Your task to perform on an android device: change notification settings in the gmail app Image 0: 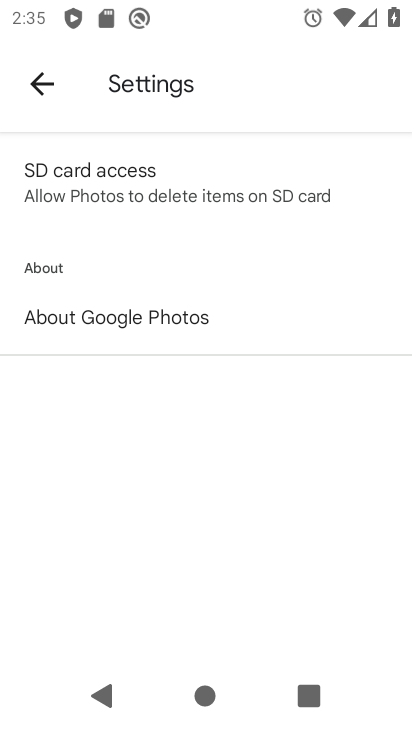
Step 0: press home button
Your task to perform on an android device: change notification settings in the gmail app Image 1: 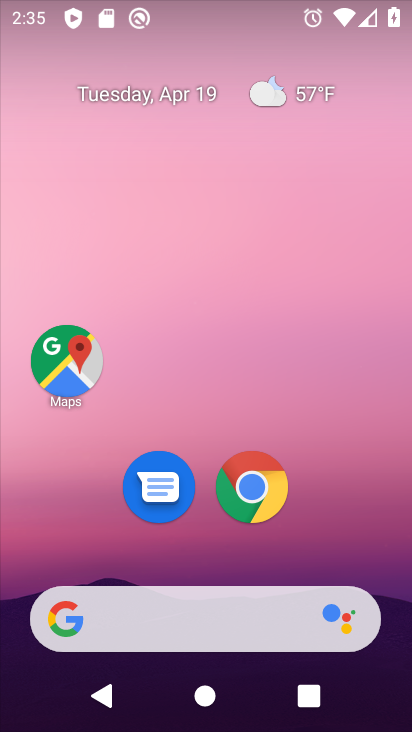
Step 1: drag from (358, 498) to (335, 132)
Your task to perform on an android device: change notification settings in the gmail app Image 2: 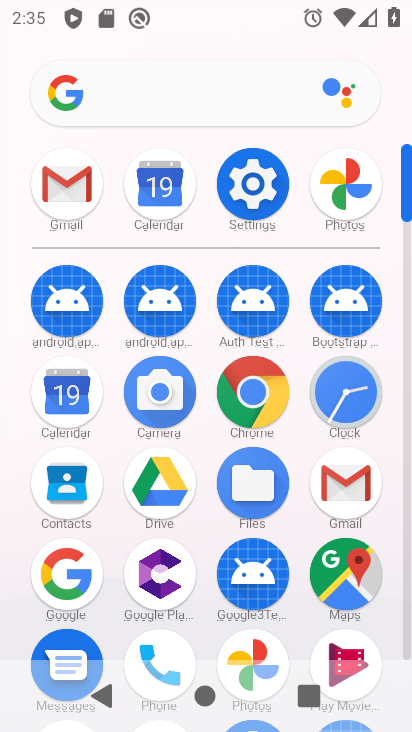
Step 2: click (341, 489)
Your task to perform on an android device: change notification settings in the gmail app Image 3: 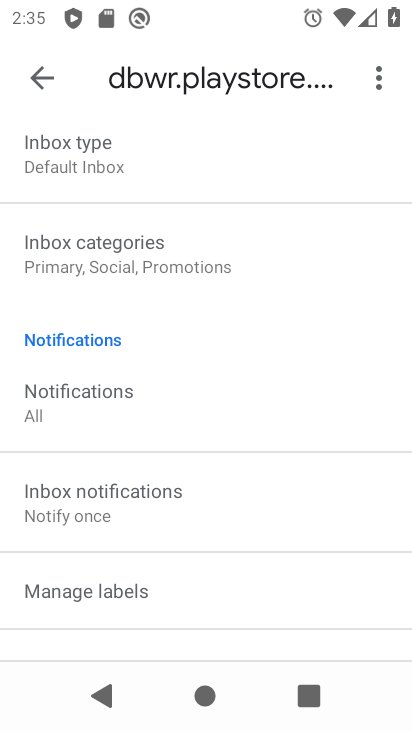
Step 3: click (97, 394)
Your task to perform on an android device: change notification settings in the gmail app Image 4: 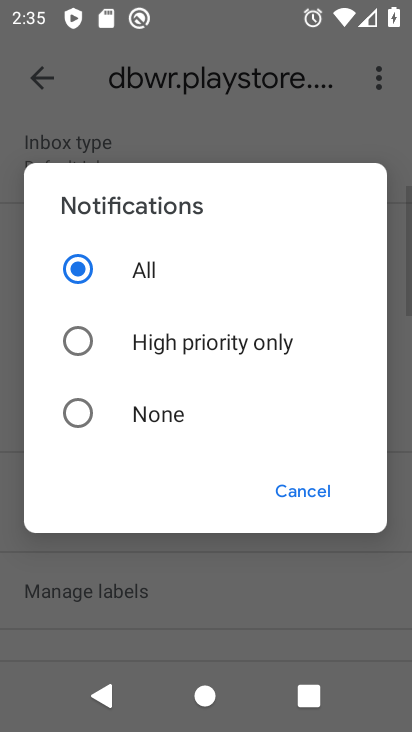
Step 4: click (190, 345)
Your task to perform on an android device: change notification settings in the gmail app Image 5: 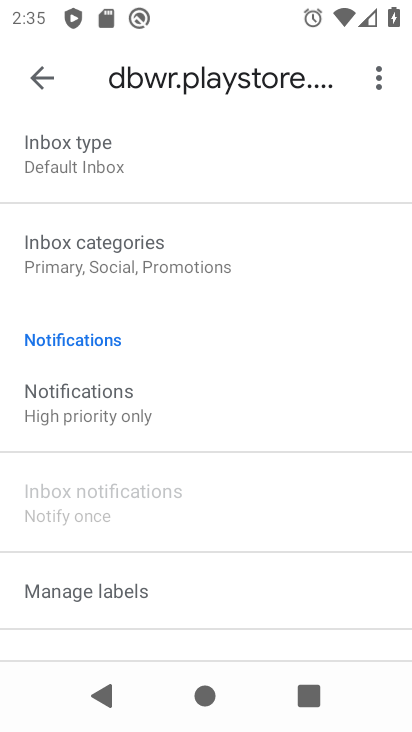
Step 5: task complete